Your task to perform on an android device: turn off airplane mode Image 0: 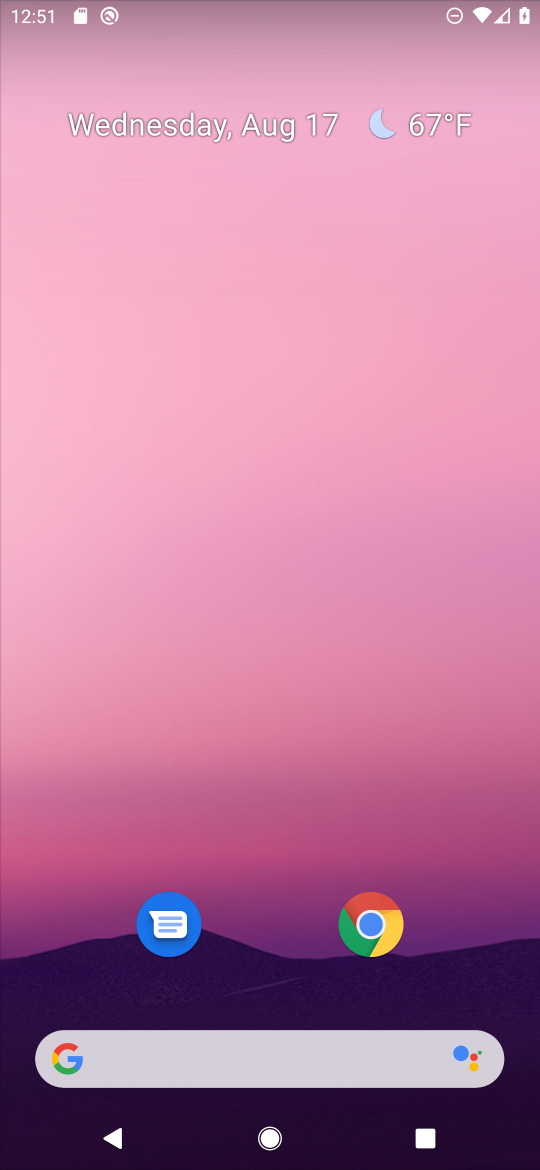
Step 0: drag from (235, 16) to (346, 891)
Your task to perform on an android device: turn off airplane mode Image 1: 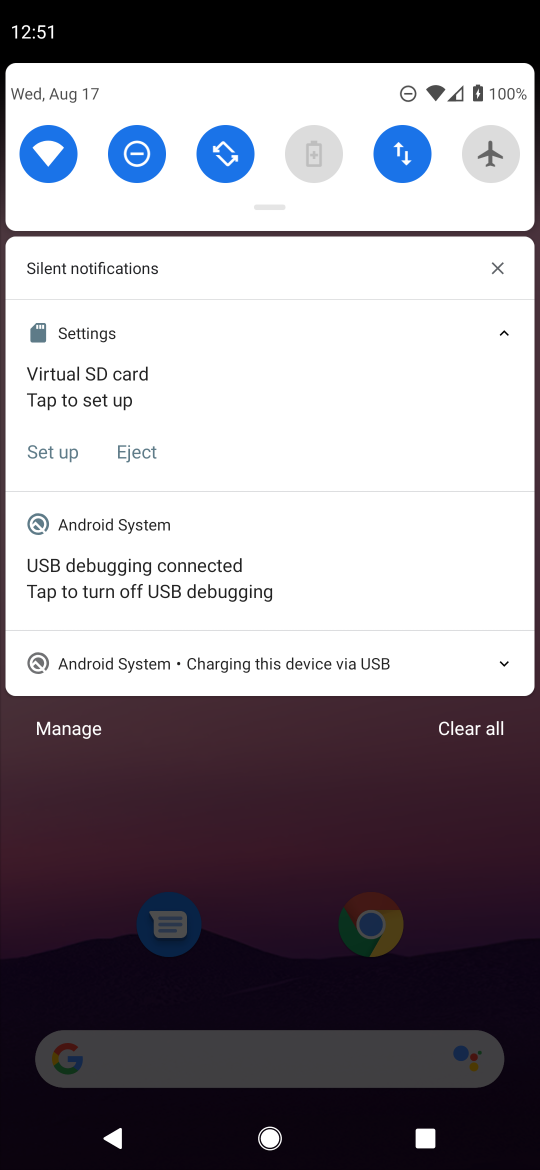
Step 1: task complete